Your task to perform on an android device: Open the Play Movies app and select the watchlist tab. Image 0: 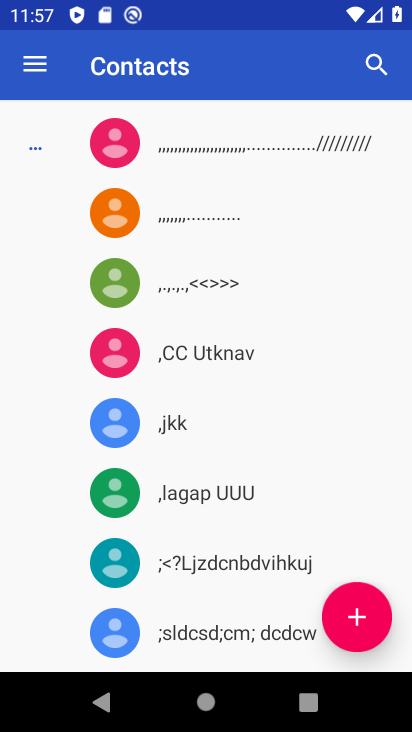
Step 0: press home button
Your task to perform on an android device: Open the Play Movies app and select the watchlist tab. Image 1: 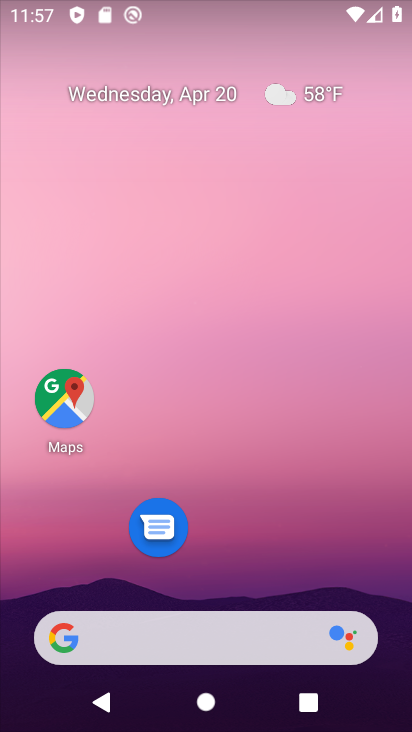
Step 1: drag from (221, 720) to (220, 110)
Your task to perform on an android device: Open the Play Movies app and select the watchlist tab. Image 2: 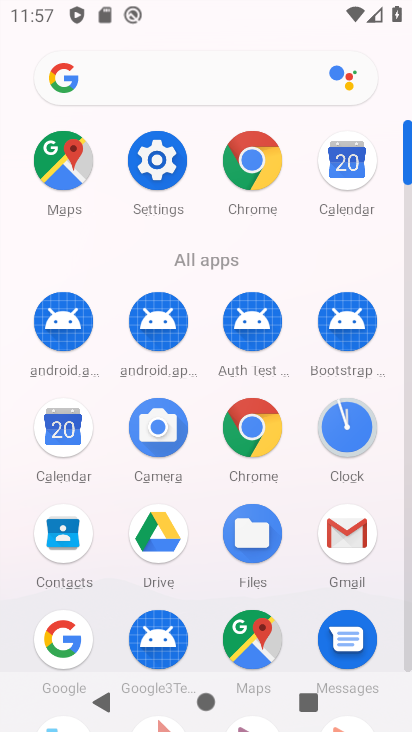
Step 2: drag from (204, 566) to (204, 240)
Your task to perform on an android device: Open the Play Movies app and select the watchlist tab. Image 3: 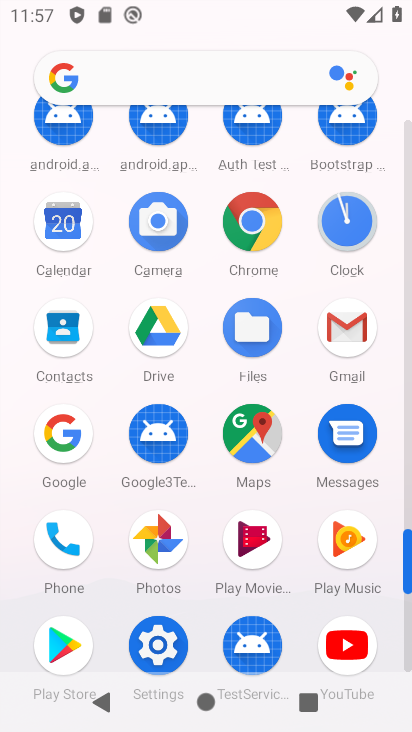
Step 3: click (248, 544)
Your task to perform on an android device: Open the Play Movies app and select the watchlist tab. Image 4: 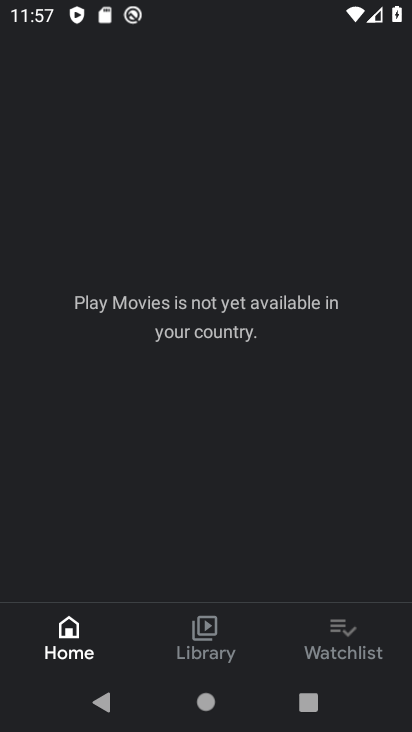
Step 4: click (337, 637)
Your task to perform on an android device: Open the Play Movies app and select the watchlist tab. Image 5: 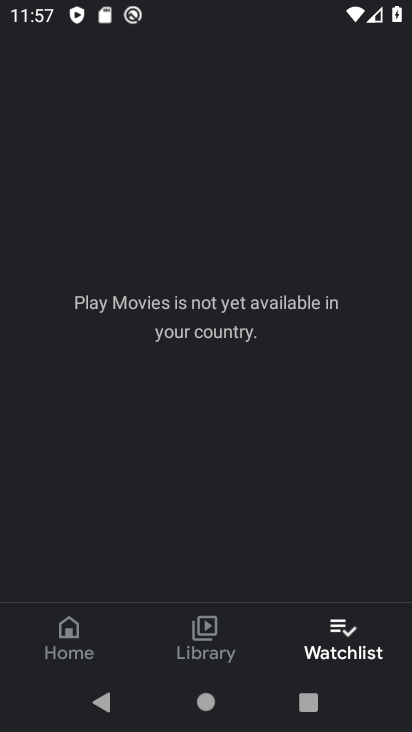
Step 5: task complete